Your task to perform on an android device: turn on bluetooth scan Image 0: 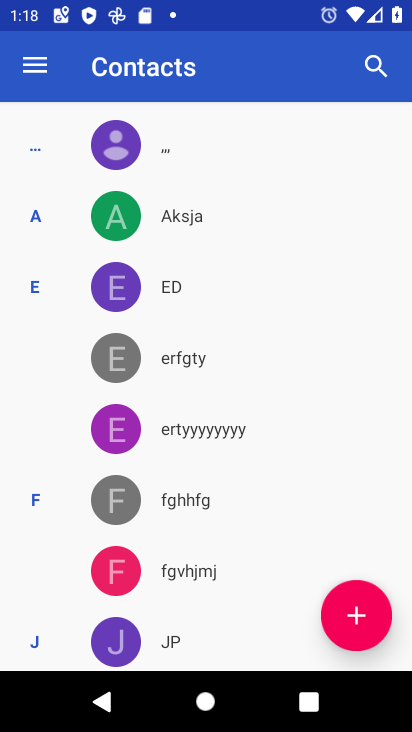
Step 0: press home button
Your task to perform on an android device: turn on bluetooth scan Image 1: 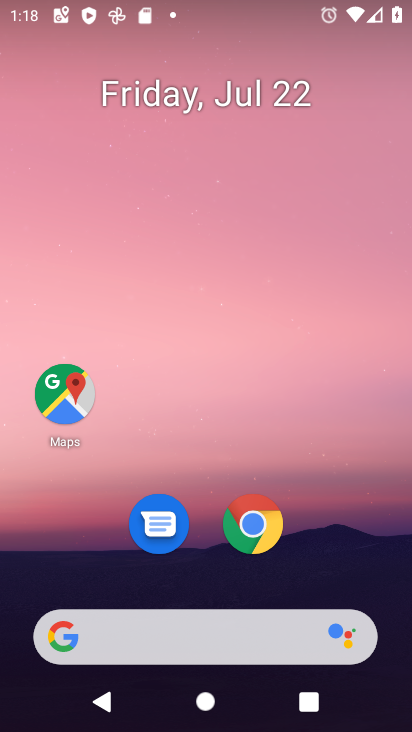
Step 1: drag from (156, 637) to (300, 76)
Your task to perform on an android device: turn on bluetooth scan Image 2: 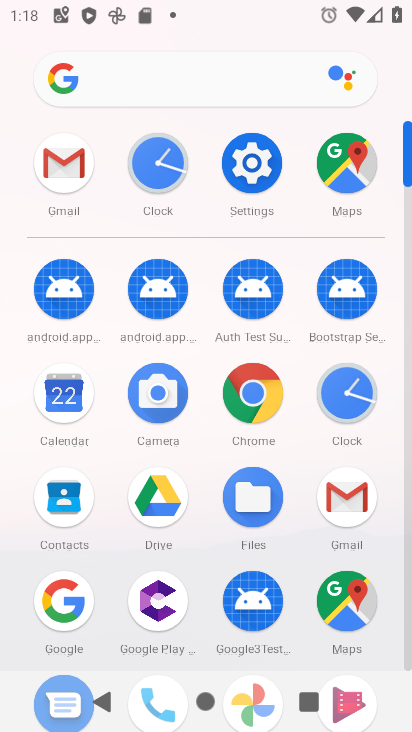
Step 2: click (244, 172)
Your task to perform on an android device: turn on bluetooth scan Image 3: 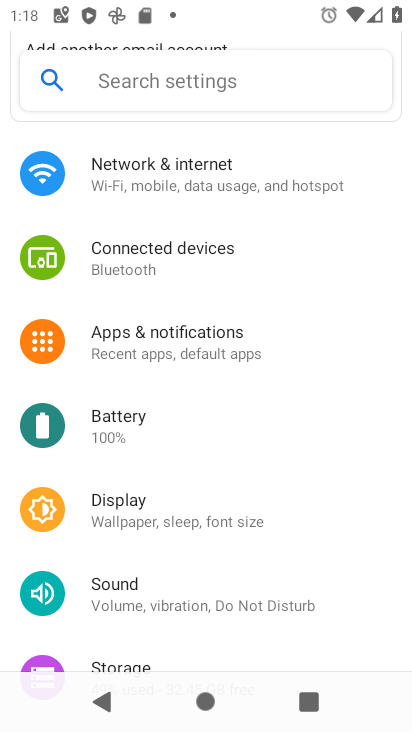
Step 3: drag from (241, 490) to (343, 137)
Your task to perform on an android device: turn on bluetooth scan Image 4: 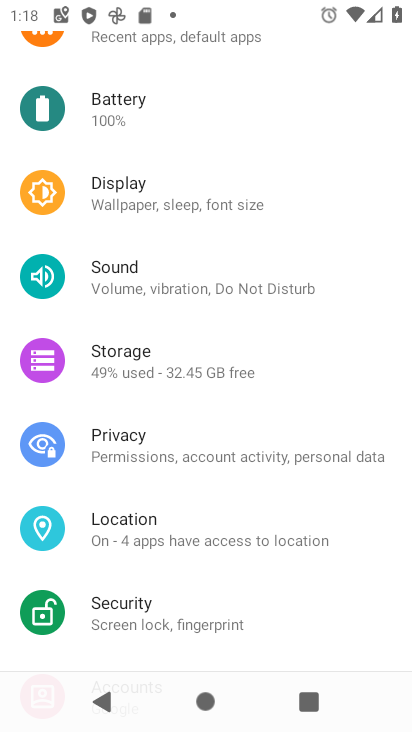
Step 4: click (150, 521)
Your task to perform on an android device: turn on bluetooth scan Image 5: 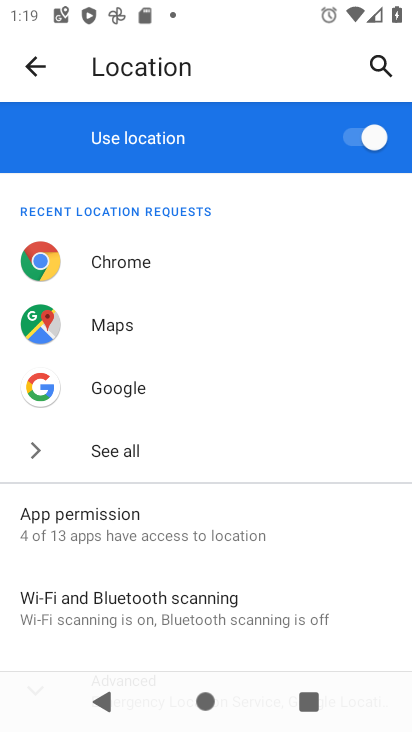
Step 5: click (175, 610)
Your task to perform on an android device: turn on bluetooth scan Image 6: 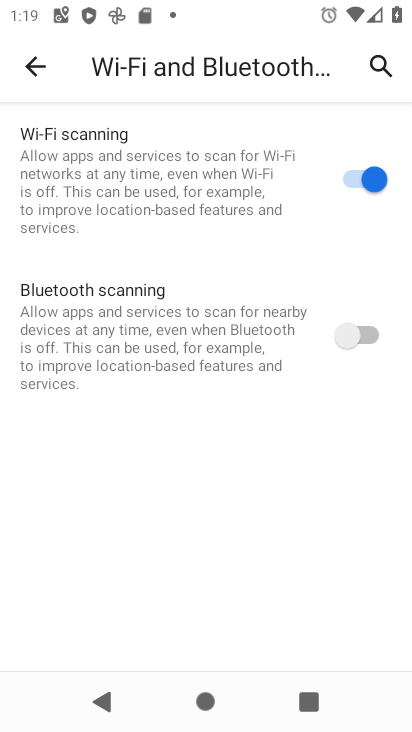
Step 6: click (358, 340)
Your task to perform on an android device: turn on bluetooth scan Image 7: 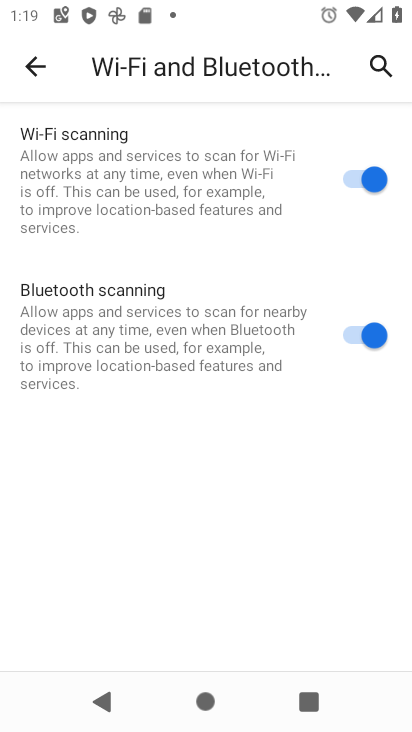
Step 7: task complete